Your task to perform on an android device: Go to sound settings Image 0: 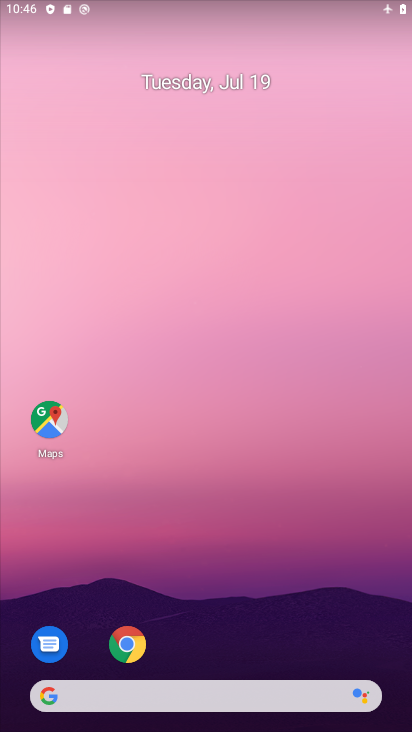
Step 0: drag from (242, 581) to (220, 218)
Your task to perform on an android device: Go to sound settings Image 1: 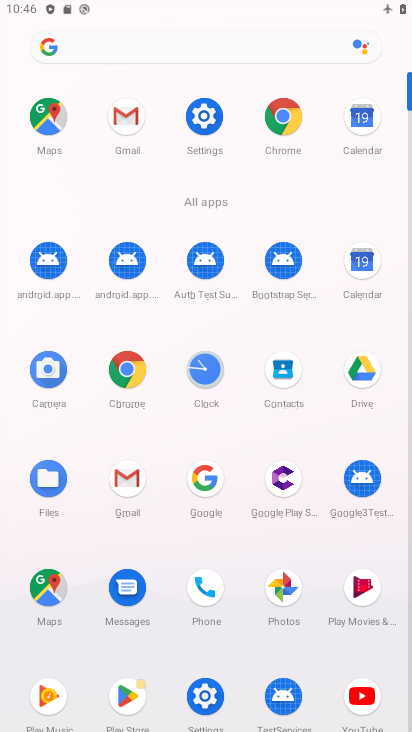
Step 1: click (198, 116)
Your task to perform on an android device: Go to sound settings Image 2: 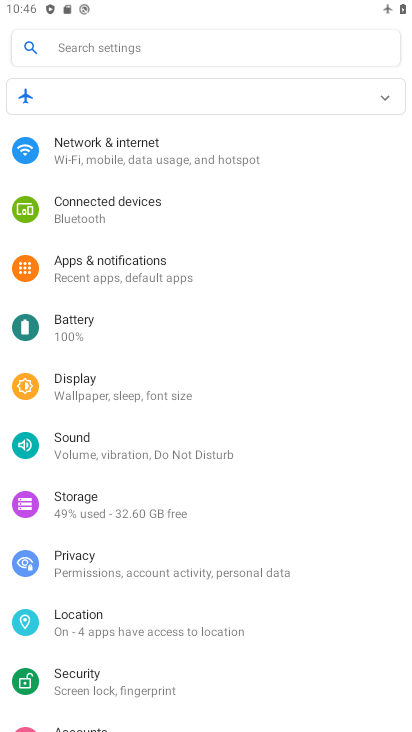
Step 2: click (76, 442)
Your task to perform on an android device: Go to sound settings Image 3: 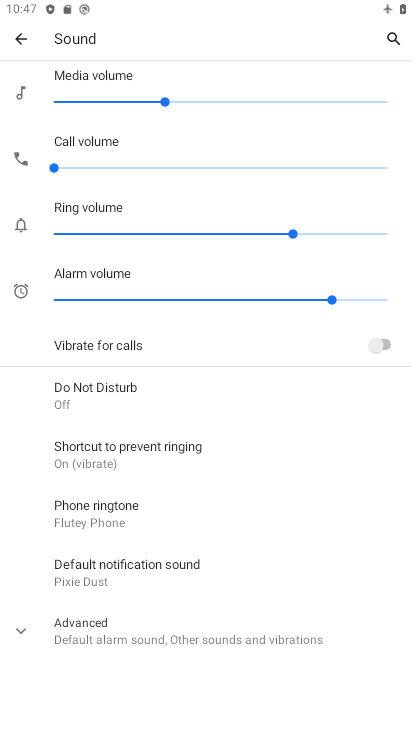
Step 3: task complete